Your task to perform on an android device: all mails in gmail Image 0: 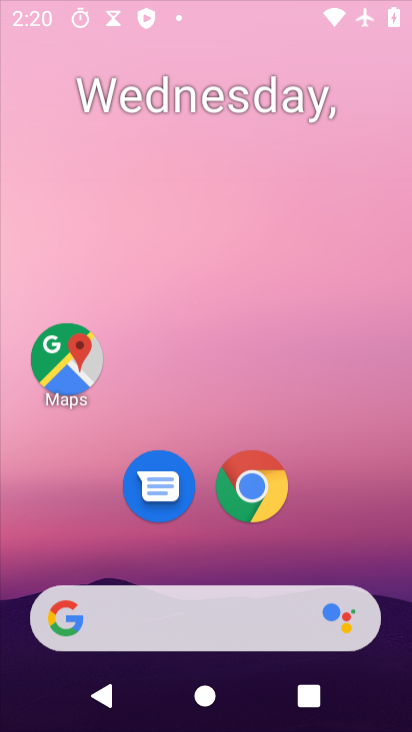
Step 0: drag from (343, 630) to (261, 11)
Your task to perform on an android device: all mails in gmail Image 1: 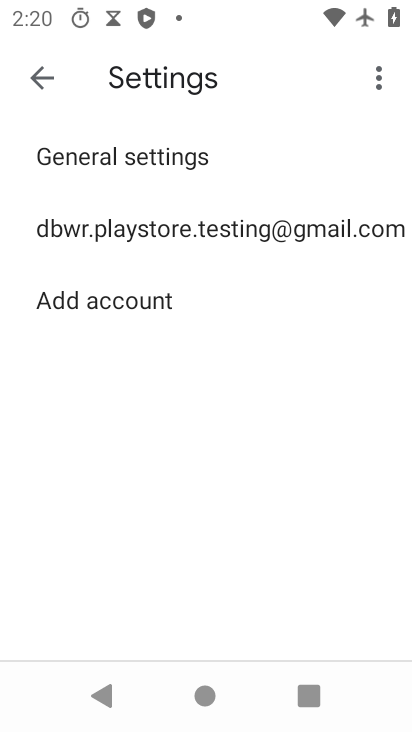
Step 1: click (41, 74)
Your task to perform on an android device: all mails in gmail Image 2: 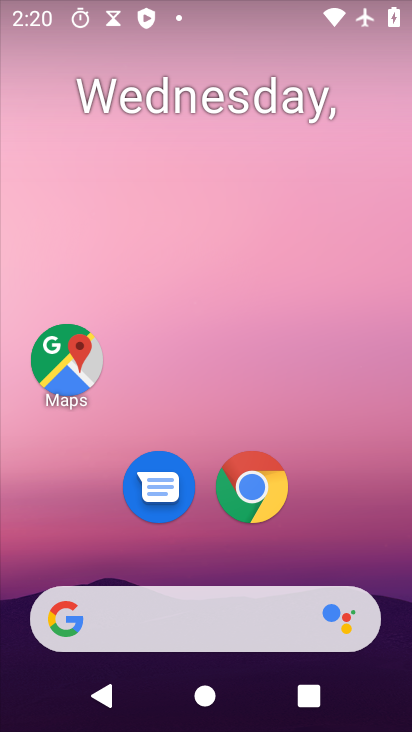
Step 2: drag from (293, 520) to (261, 115)
Your task to perform on an android device: all mails in gmail Image 3: 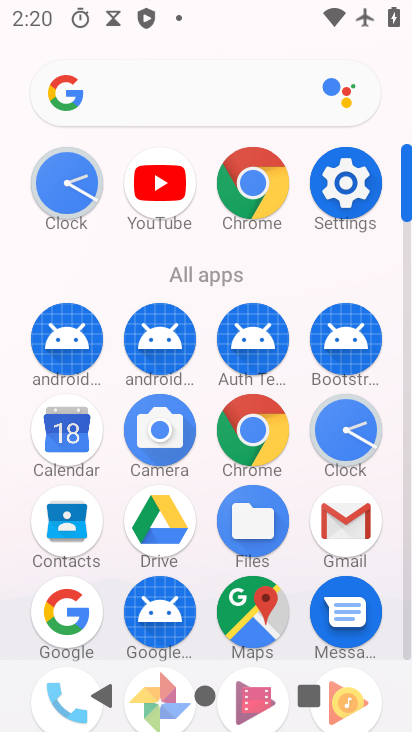
Step 3: click (332, 514)
Your task to perform on an android device: all mails in gmail Image 4: 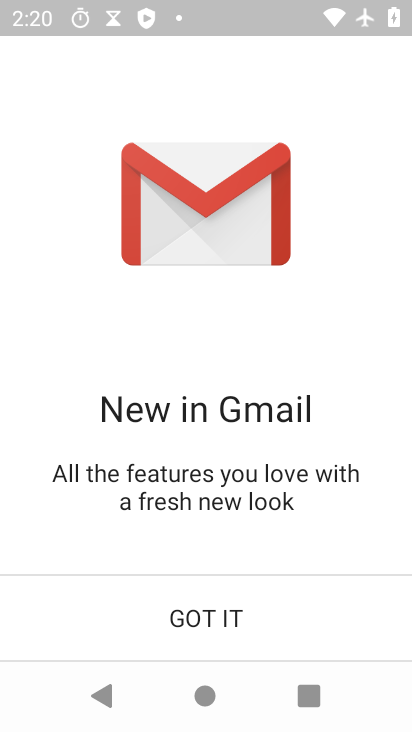
Step 4: click (230, 626)
Your task to perform on an android device: all mails in gmail Image 5: 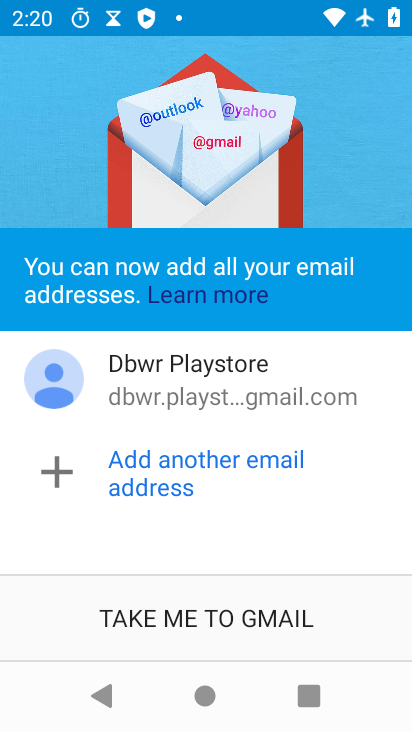
Step 5: click (165, 602)
Your task to perform on an android device: all mails in gmail Image 6: 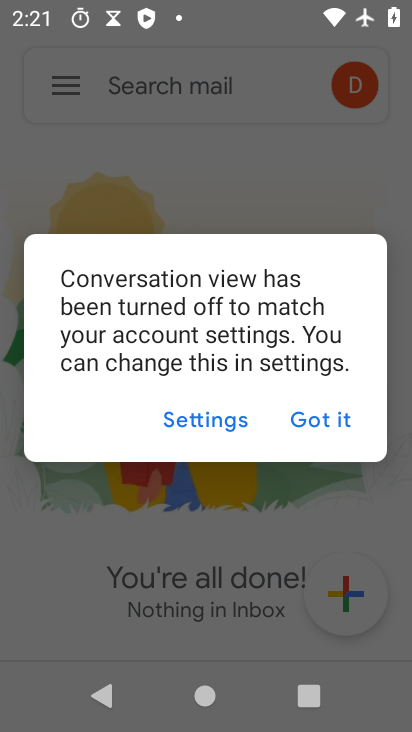
Step 6: click (323, 417)
Your task to perform on an android device: all mails in gmail Image 7: 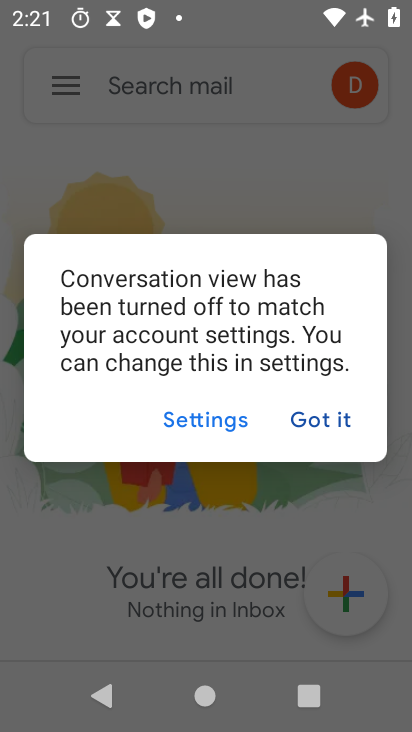
Step 7: click (209, 420)
Your task to perform on an android device: all mails in gmail Image 8: 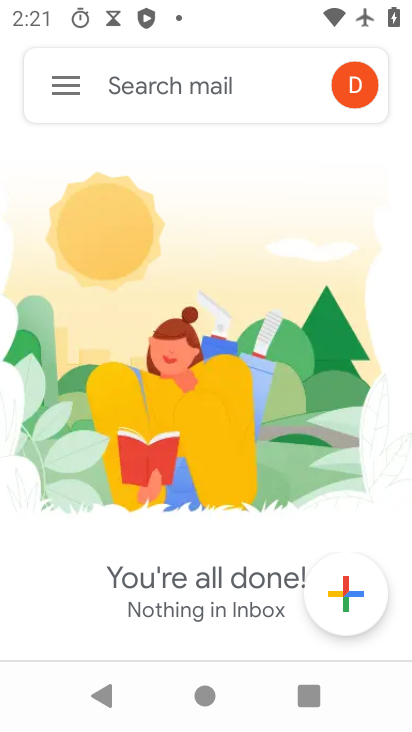
Step 8: click (209, 420)
Your task to perform on an android device: all mails in gmail Image 9: 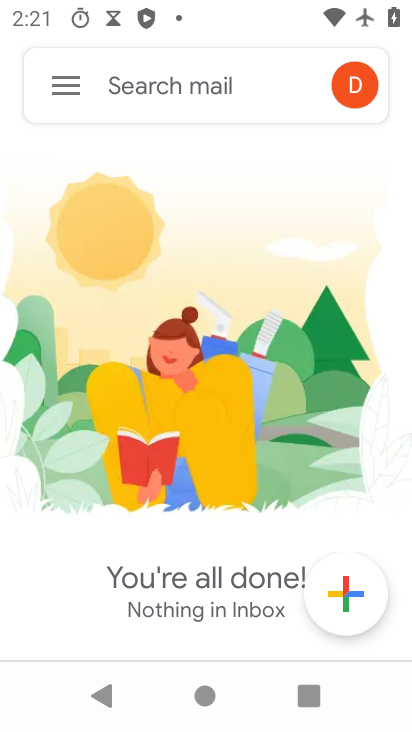
Step 9: click (64, 82)
Your task to perform on an android device: all mails in gmail Image 10: 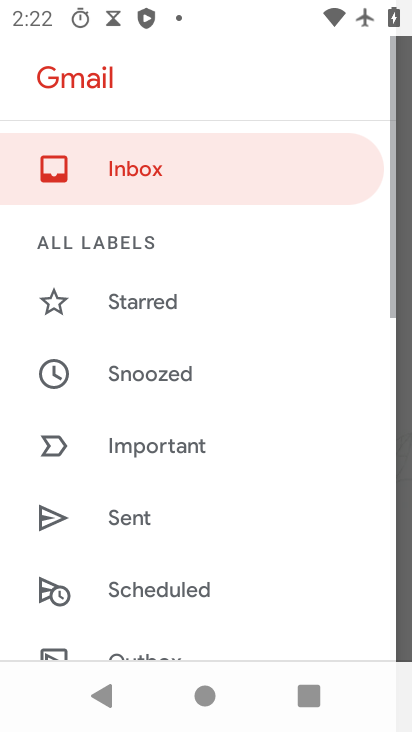
Step 10: drag from (150, 463) to (138, 193)
Your task to perform on an android device: all mails in gmail Image 11: 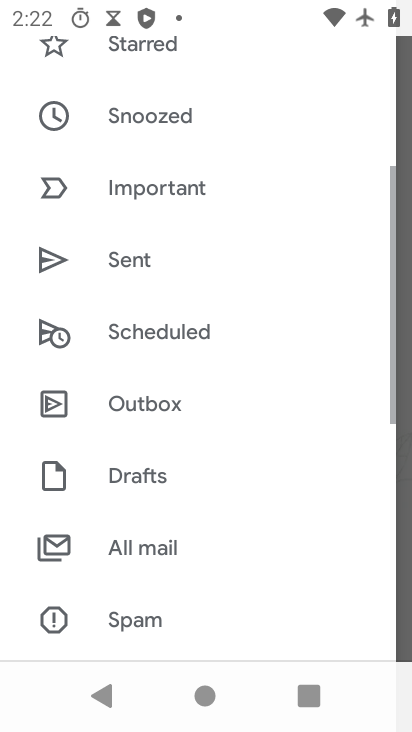
Step 11: drag from (188, 449) to (188, 164)
Your task to perform on an android device: all mails in gmail Image 12: 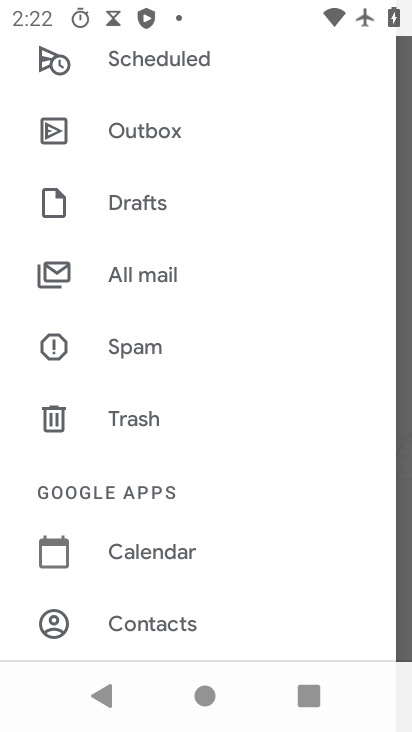
Step 12: click (134, 274)
Your task to perform on an android device: all mails in gmail Image 13: 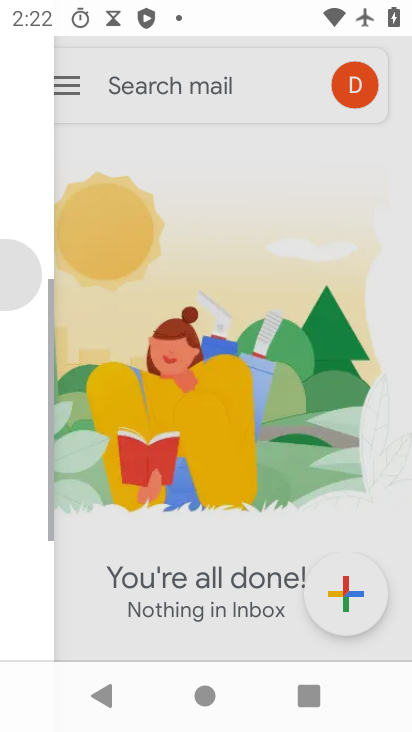
Step 13: click (136, 273)
Your task to perform on an android device: all mails in gmail Image 14: 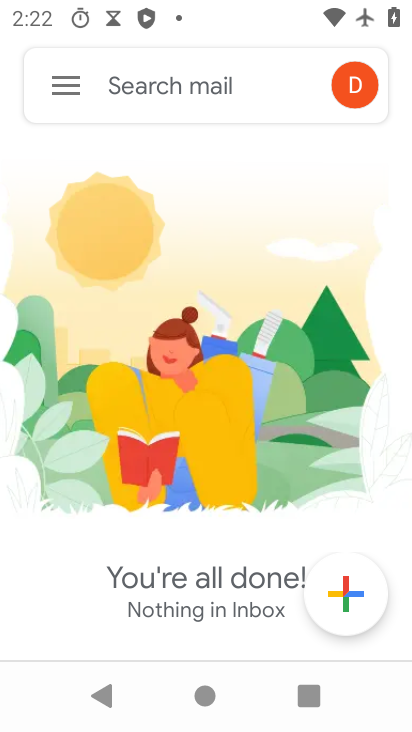
Step 14: click (137, 272)
Your task to perform on an android device: all mails in gmail Image 15: 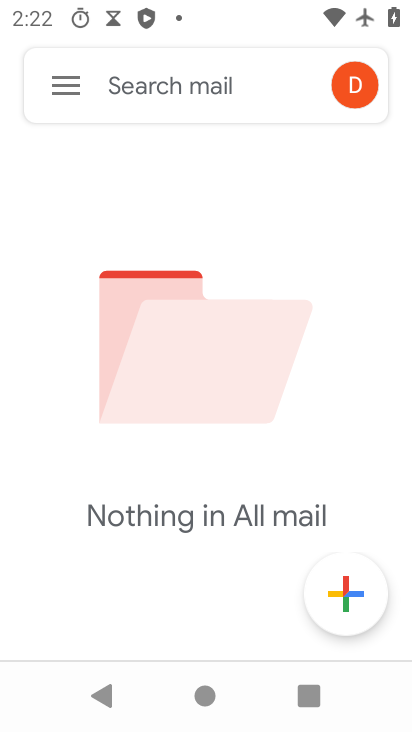
Step 15: task complete